Your task to perform on an android device: toggle location history Image 0: 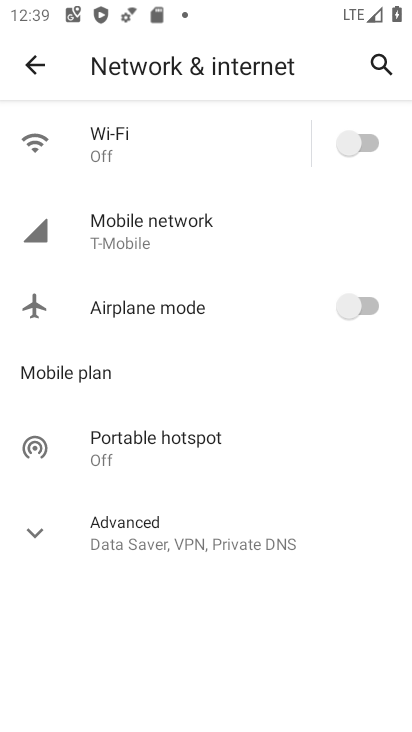
Step 0: press home button
Your task to perform on an android device: toggle location history Image 1: 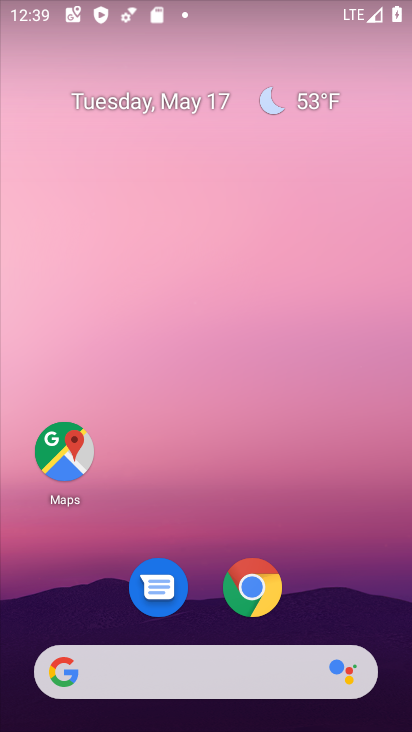
Step 1: drag from (188, 629) to (151, 167)
Your task to perform on an android device: toggle location history Image 2: 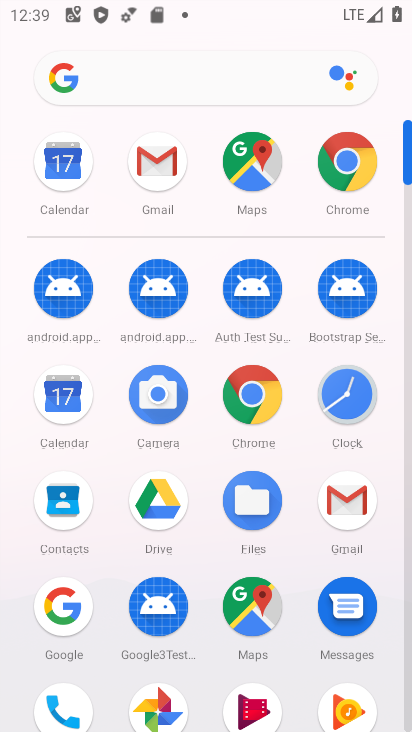
Step 2: drag from (212, 556) to (234, 7)
Your task to perform on an android device: toggle location history Image 3: 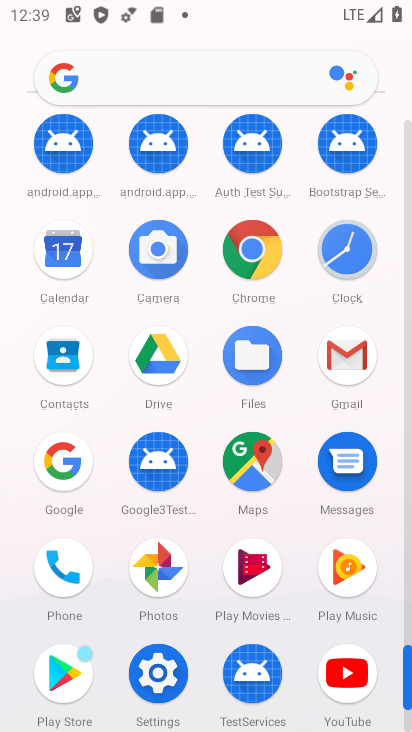
Step 3: click (161, 687)
Your task to perform on an android device: toggle location history Image 4: 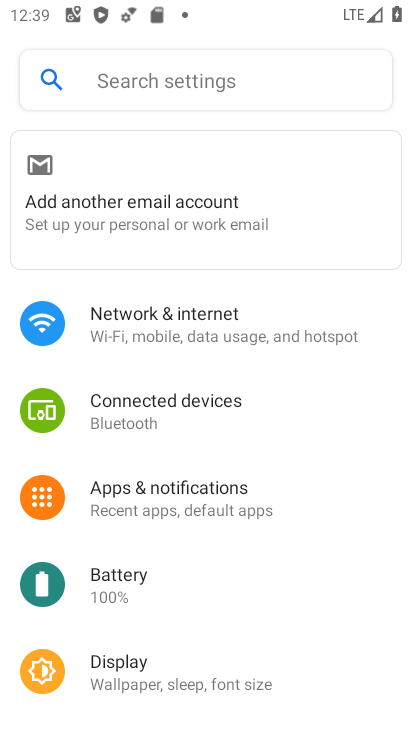
Step 4: drag from (194, 585) to (138, 85)
Your task to perform on an android device: toggle location history Image 5: 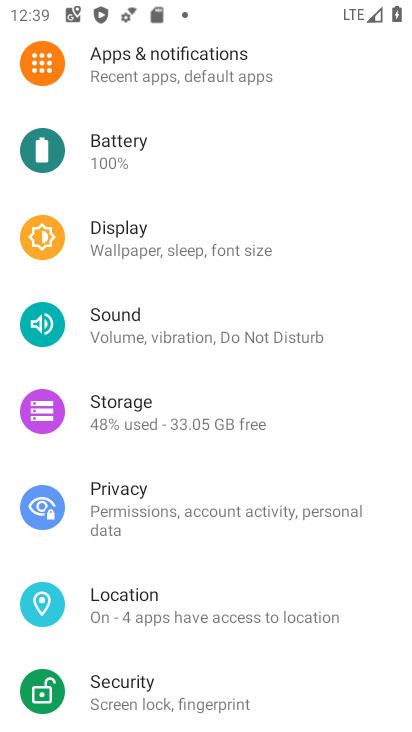
Step 5: click (165, 606)
Your task to perform on an android device: toggle location history Image 6: 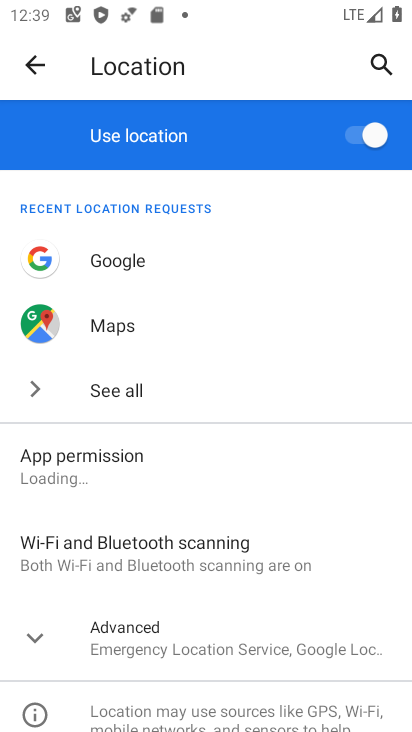
Step 6: click (171, 638)
Your task to perform on an android device: toggle location history Image 7: 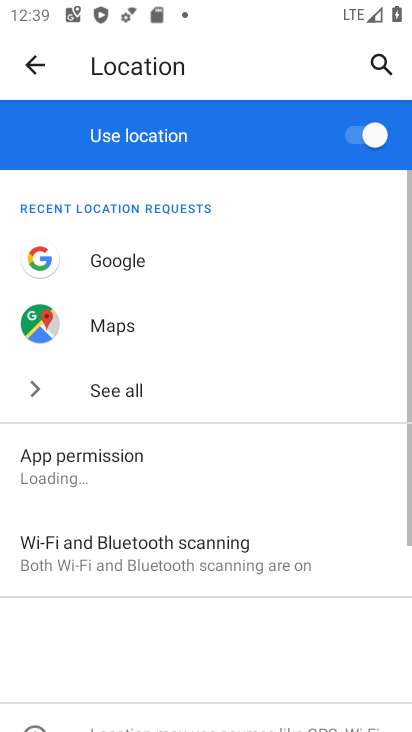
Step 7: drag from (171, 638) to (114, 155)
Your task to perform on an android device: toggle location history Image 8: 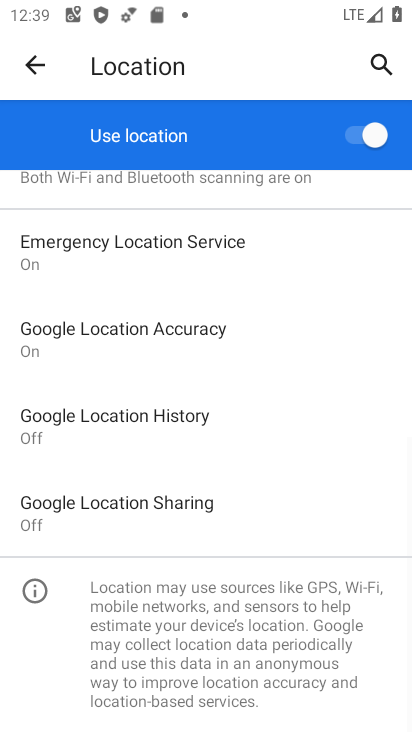
Step 8: click (130, 444)
Your task to perform on an android device: toggle location history Image 9: 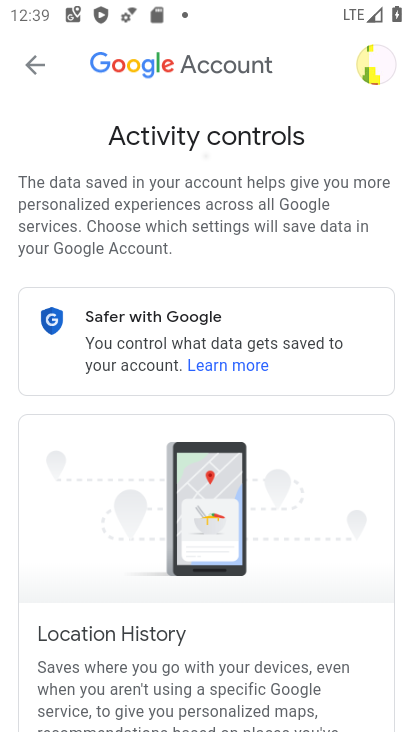
Step 9: drag from (296, 567) to (233, 69)
Your task to perform on an android device: toggle location history Image 10: 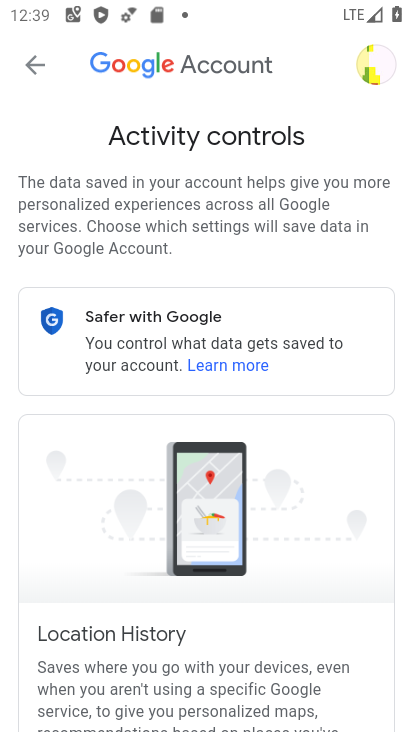
Step 10: drag from (255, 549) to (229, 45)
Your task to perform on an android device: toggle location history Image 11: 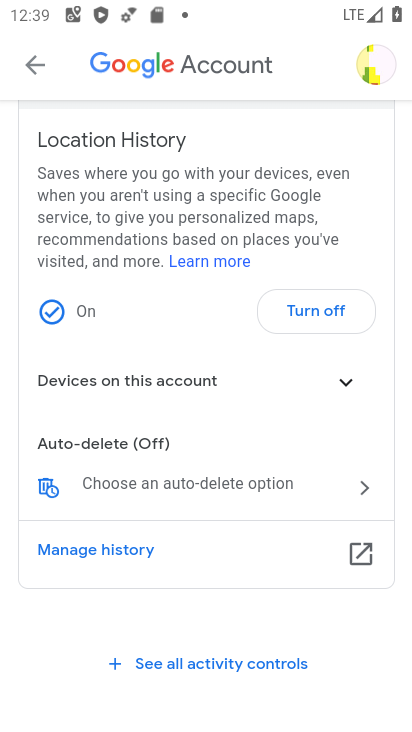
Step 11: click (316, 314)
Your task to perform on an android device: toggle location history Image 12: 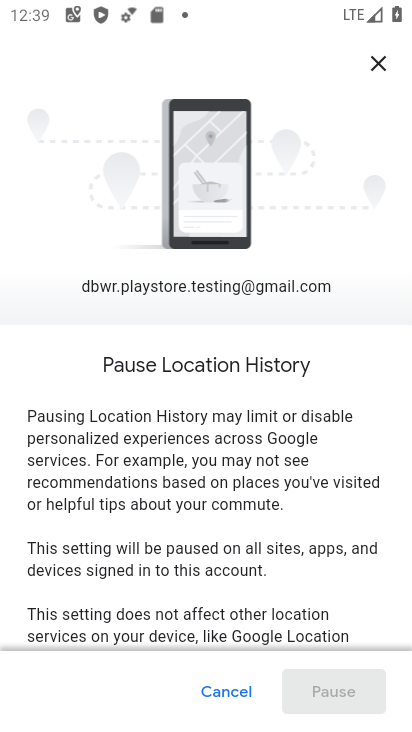
Step 12: drag from (323, 566) to (276, 3)
Your task to perform on an android device: toggle location history Image 13: 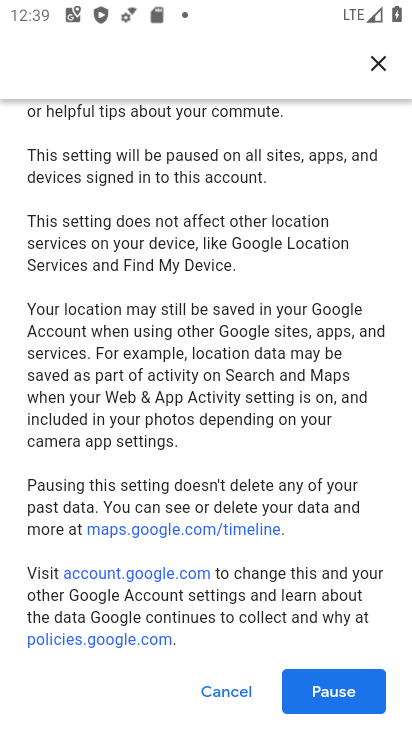
Step 13: drag from (302, 598) to (271, 350)
Your task to perform on an android device: toggle location history Image 14: 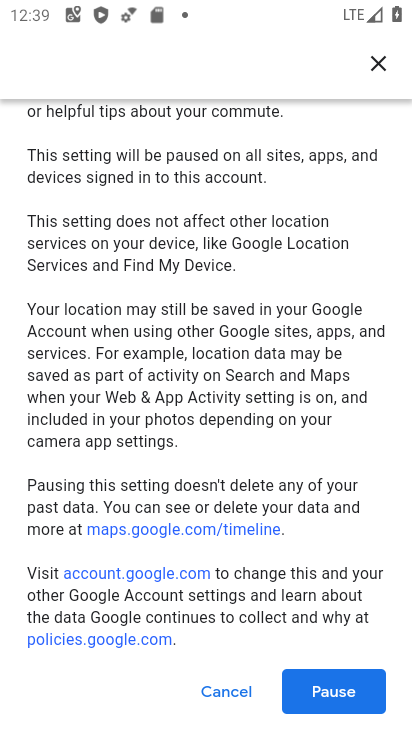
Step 14: click (351, 689)
Your task to perform on an android device: toggle location history Image 15: 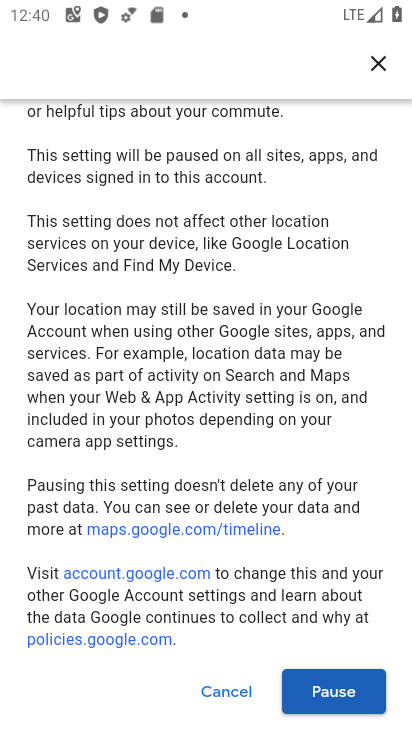
Step 15: click (351, 684)
Your task to perform on an android device: toggle location history Image 16: 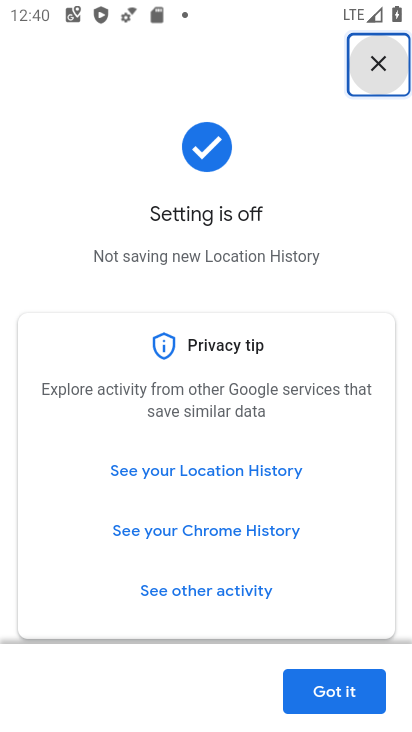
Step 16: click (341, 694)
Your task to perform on an android device: toggle location history Image 17: 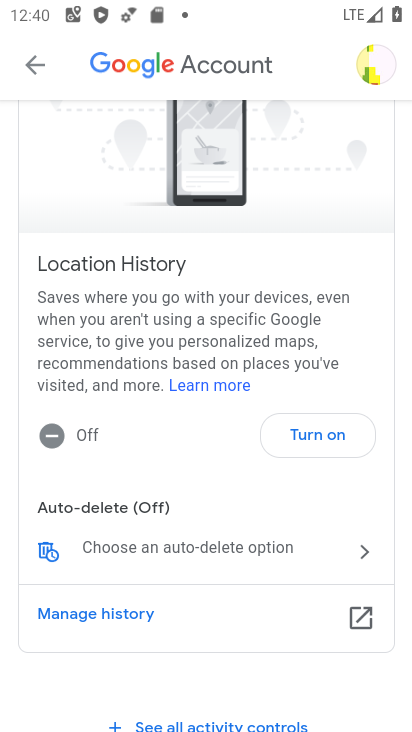
Step 17: task complete